Your task to perform on an android device: open app "Paramount+ | Peak Streaming" (install if not already installed) and enter user name: "fostered@yahoo.com" and password: "strong" Image 0: 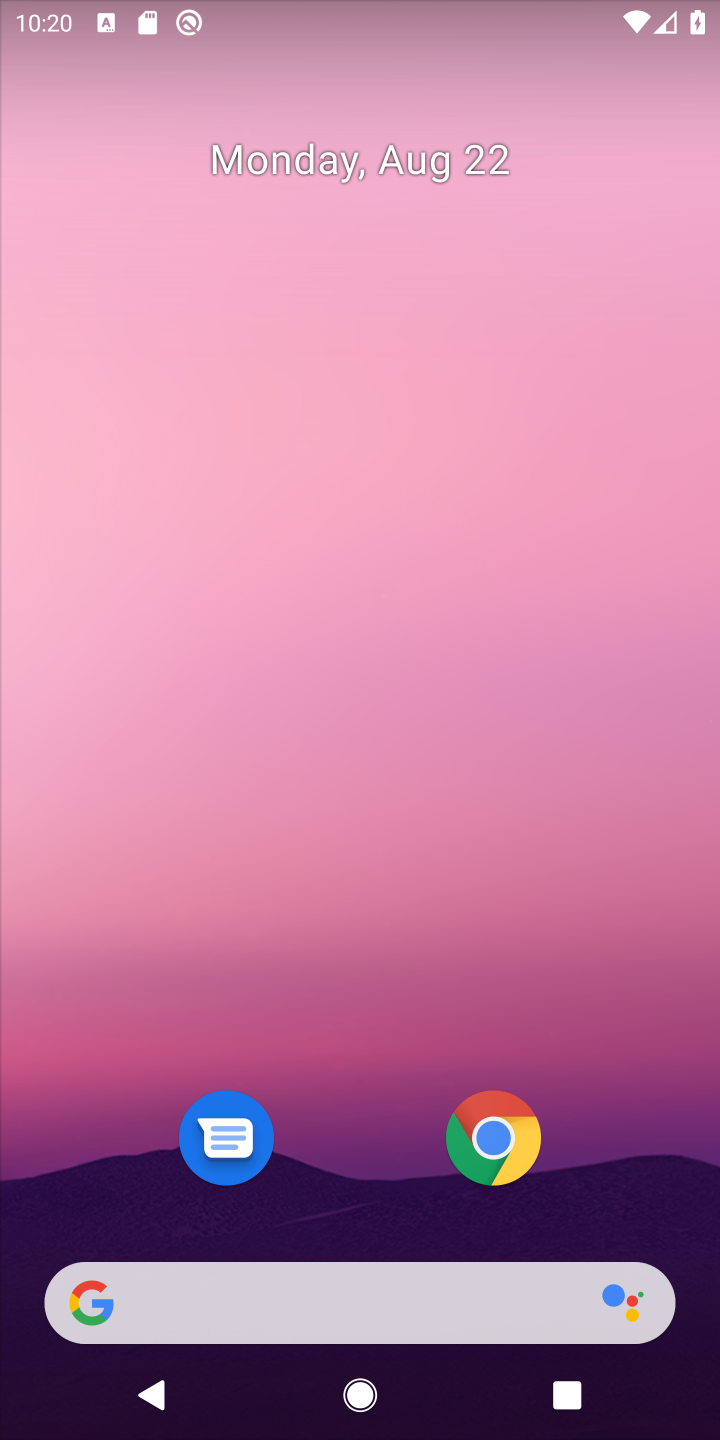
Step 0: drag from (369, 1210) to (350, 3)
Your task to perform on an android device: open app "Paramount+ | Peak Streaming" (install if not already installed) and enter user name: "fostered@yahoo.com" and password: "strong" Image 1: 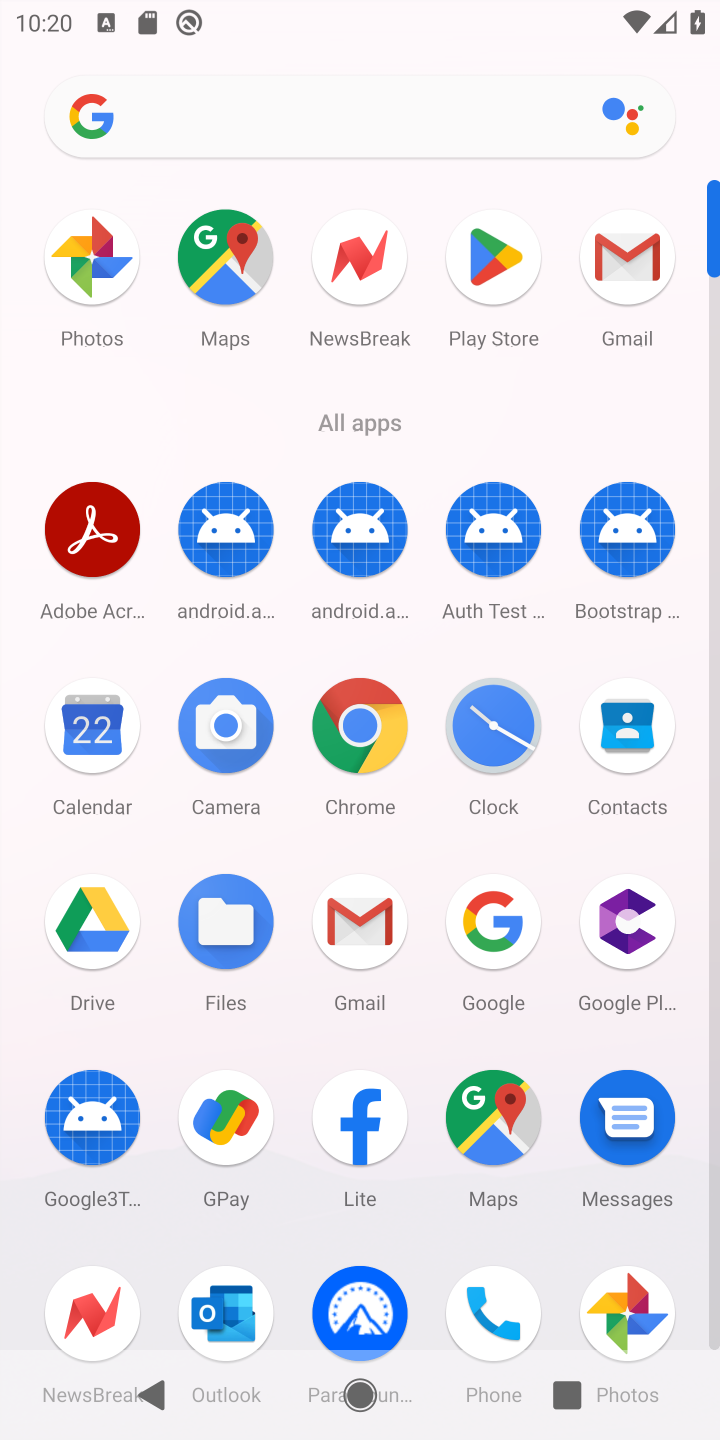
Step 1: click (486, 248)
Your task to perform on an android device: open app "Paramount+ | Peak Streaming" (install if not already installed) and enter user name: "fostered@yahoo.com" and password: "strong" Image 2: 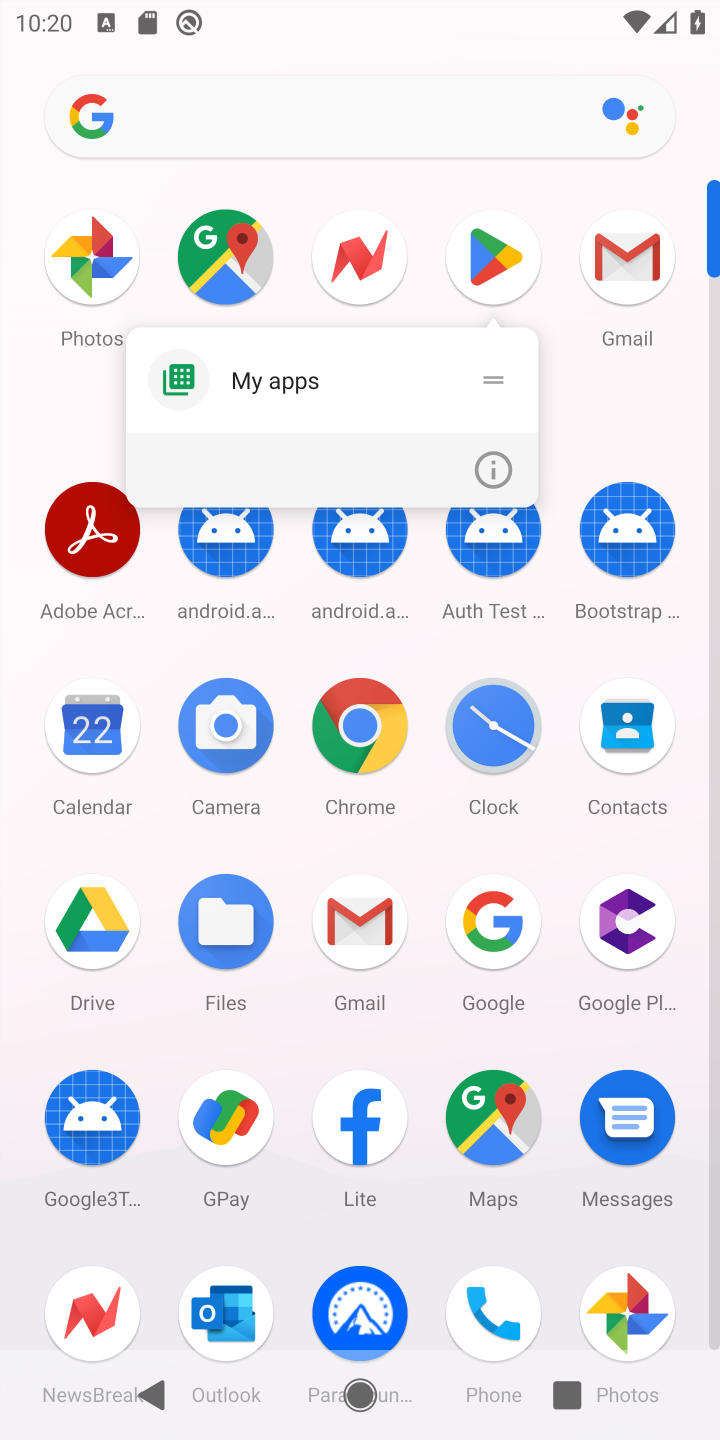
Step 2: click (487, 248)
Your task to perform on an android device: open app "Paramount+ | Peak Streaming" (install if not already installed) and enter user name: "fostered@yahoo.com" and password: "strong" Image 3: 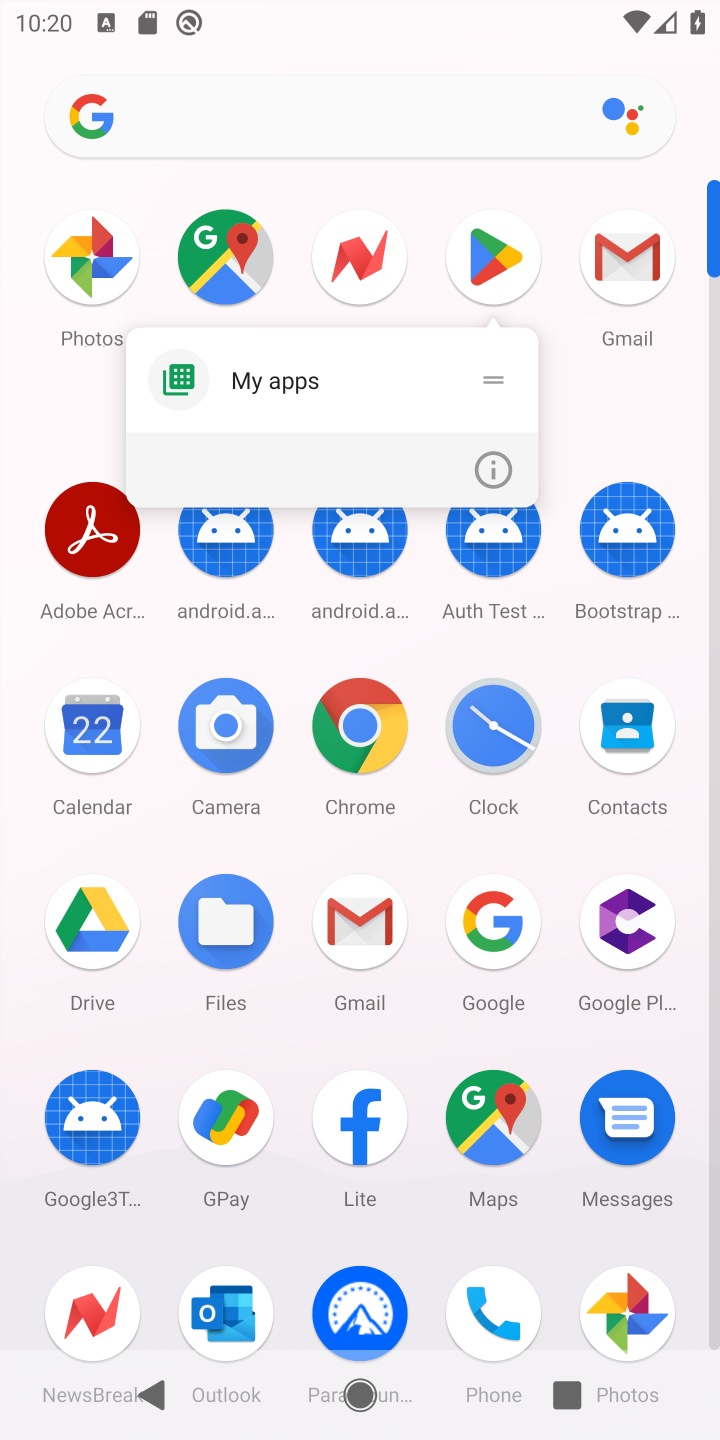
Step 3: click (487, 248)
Your task to perform on an android device: open app "Paramount+ | Peak Streaming" (install if not already installed) and enter user name: "fostered@yahoo.com" and password: "strong" Image 4: 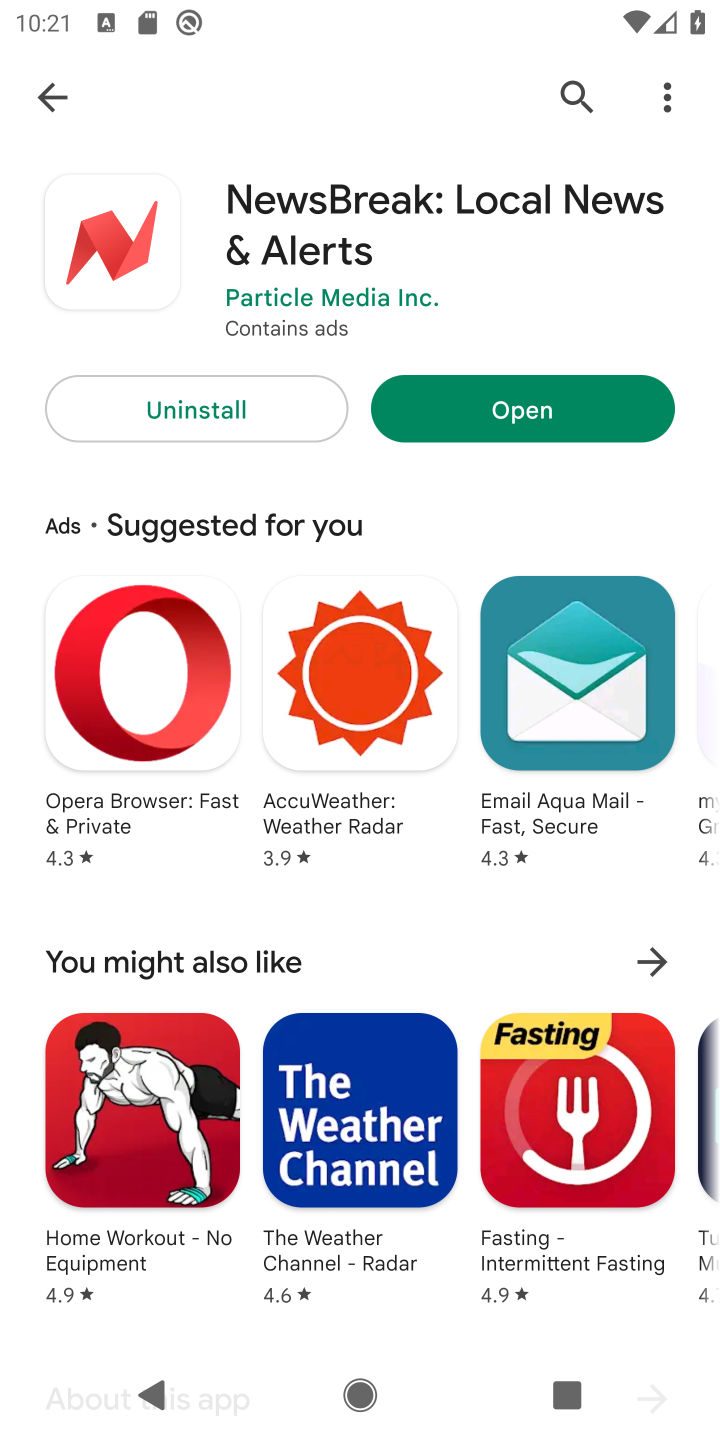
Step 4: click (575, 101)
Your task to perform on an android device: open app "Paramount+ | Peak Streaming" (install if not already installed) and enter user name: "fostered@yahoo.com" and password: "strong" Image 5: 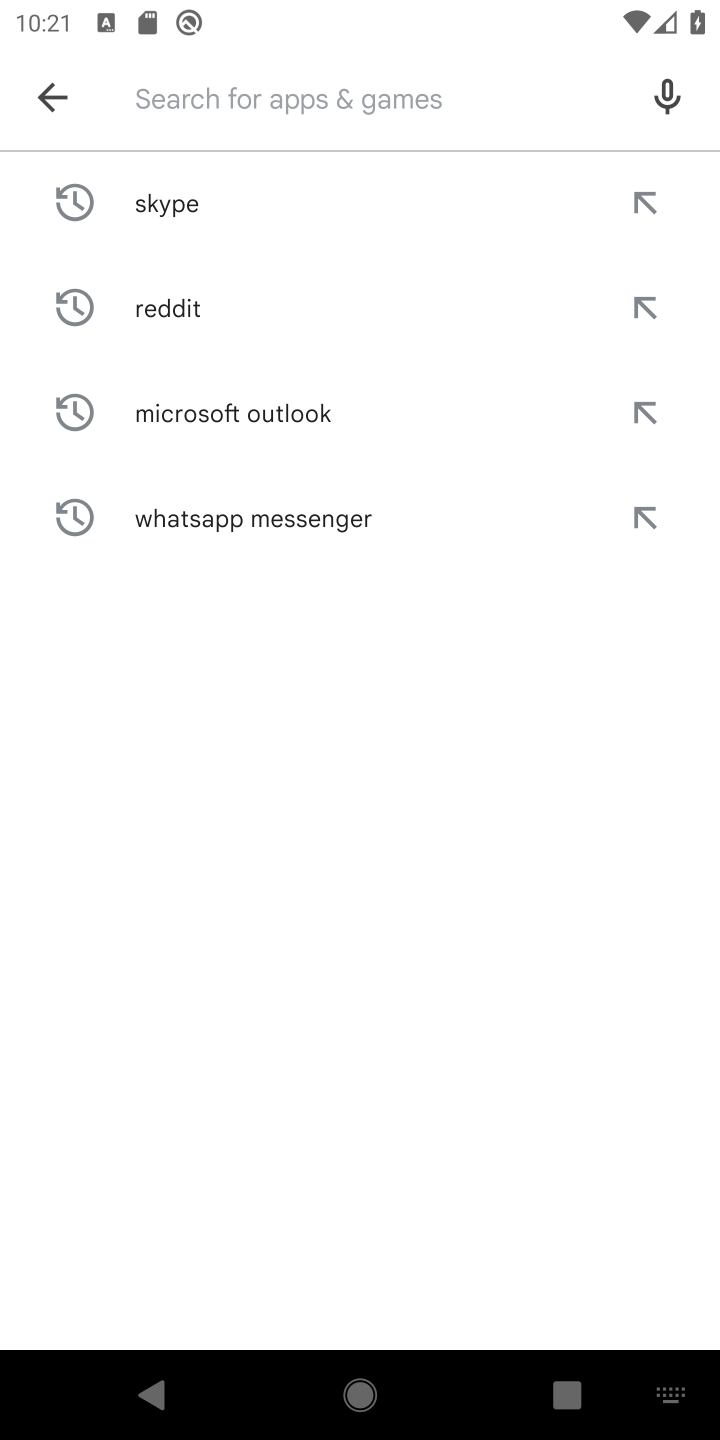
Step 5: type "Paramount+ | Peak Streaming"
Your task to perform on an android device: open app "Paramount+ | Peak Streaming" (install if not already installed) and enter user name: "fostered@yahoo.com" and password: "strong" Image 6: 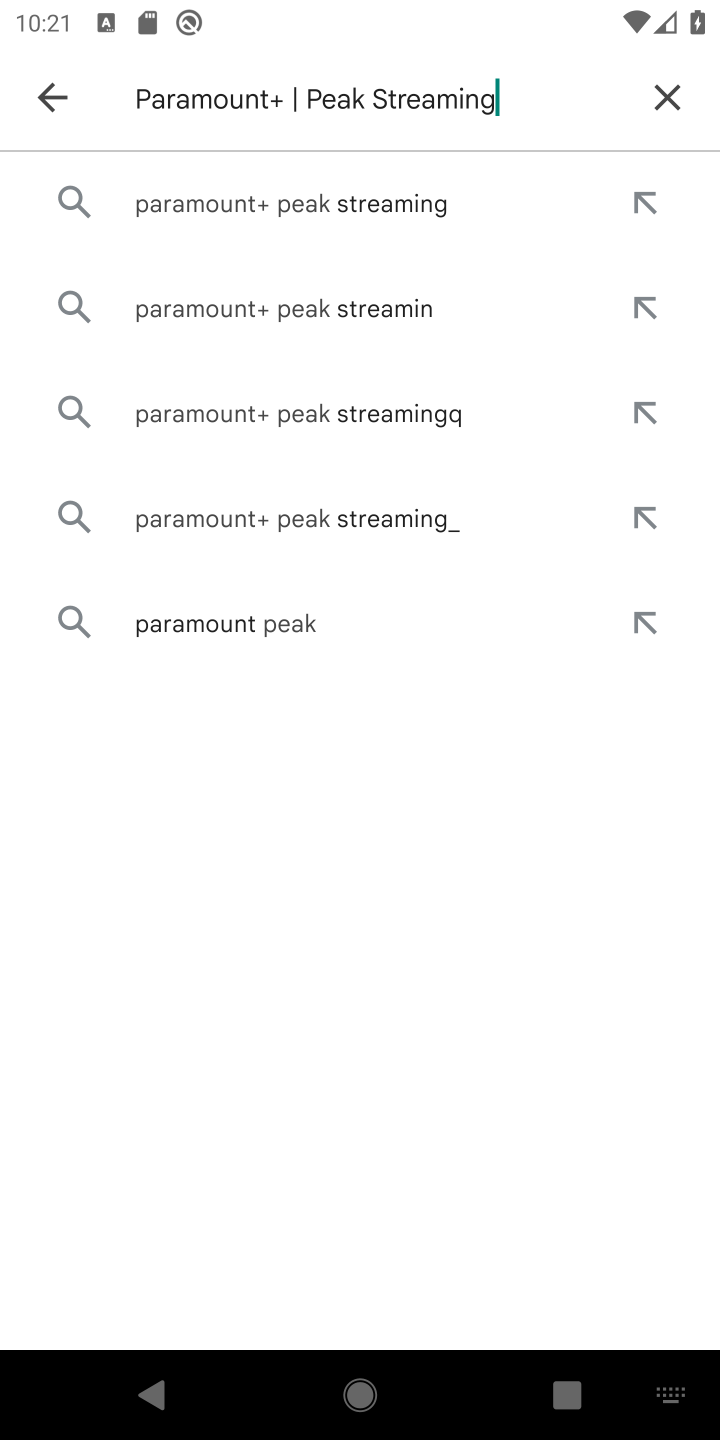
Step 6: type ""
Your task to perform on an android device: open app "Paramount+ | Peak Streaming" (install if not already installed) and enter user name: "fostered@yahoo.com" and password: "strong" Image 7: 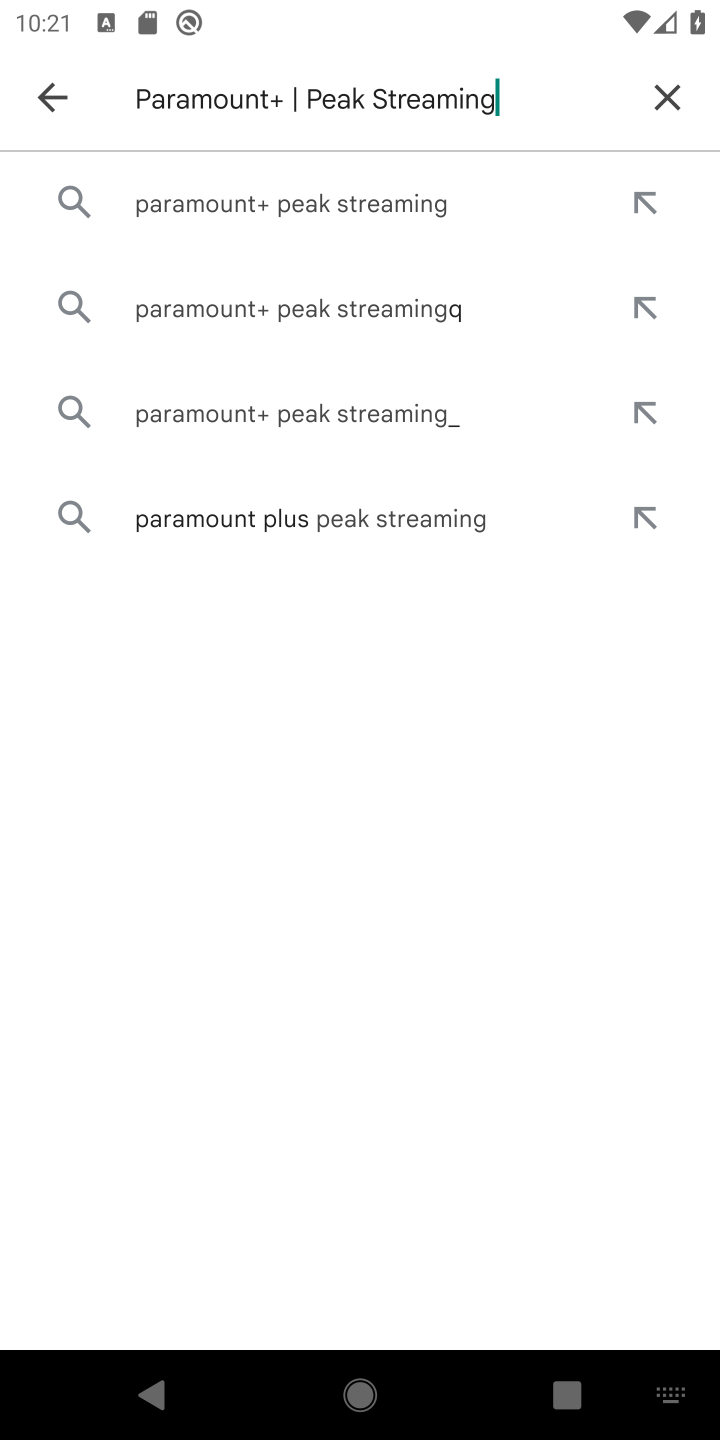
Step 7: click (299, 194)
Your task to perform on an android device: open app "Paramount+ | Peak Streaming" (install if not already installed) and enter user name: "fostered@yahoo.com" and password: "strong" Image 8: 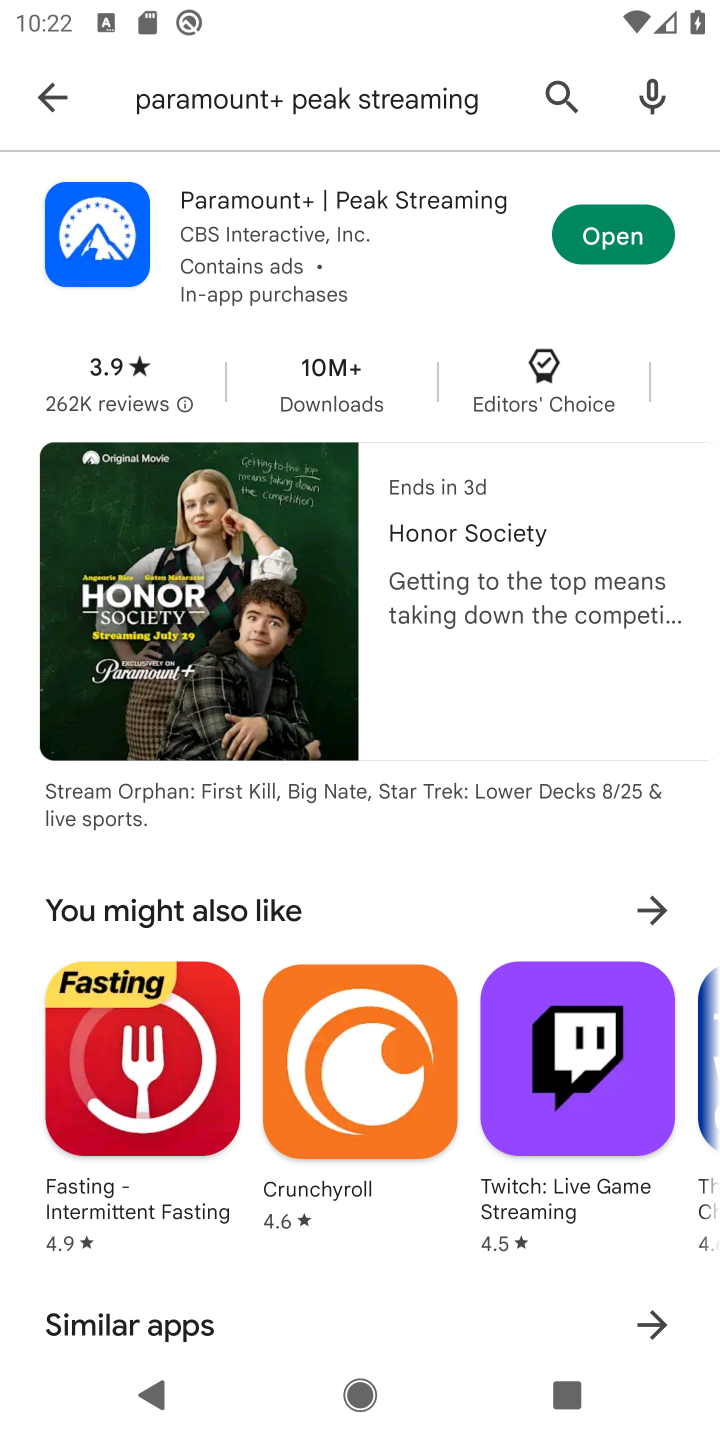
Step 8: click (610, 229)
Your task to perform on an android device: open app "Paramount+ | Peak Streaming" (install if not already installed) and enter user name: "fostered@yahoo.com" and password: "strong" Image 9: 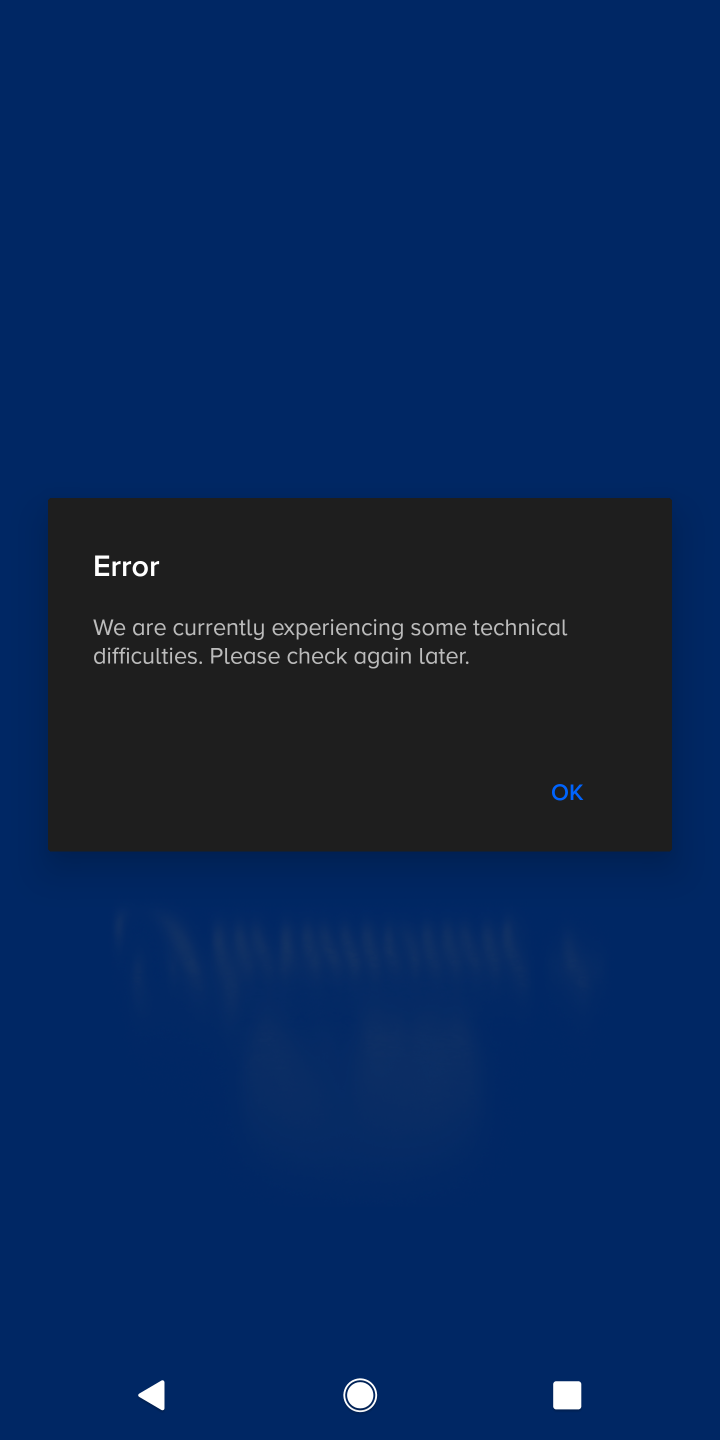
Step 9: click (576, 796)
Your task to perform on an android device: open app "Paramount+ | Peak Streaming" (install if not already installed) and enter user name: "fostered@yahoo.com" and password: "strong" Image 10: 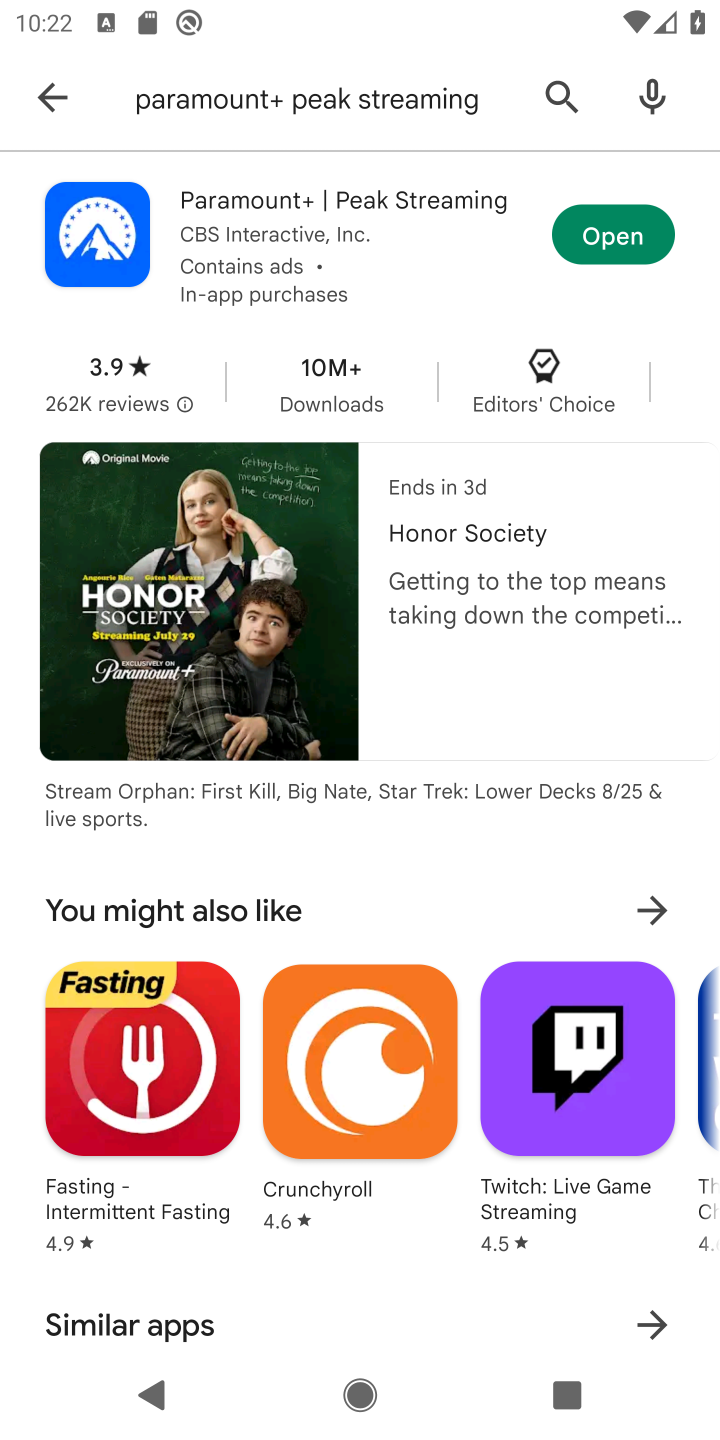
Step 10: task complete